Your task to perform on an android device: Open Chrome and go to settings Image 0: 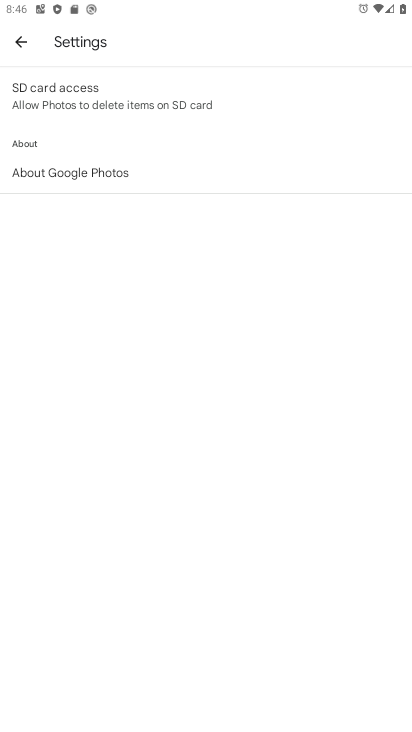
Step 0: press home button
Your task to perform on an android device: Open Chrome and go to settings Image 1: 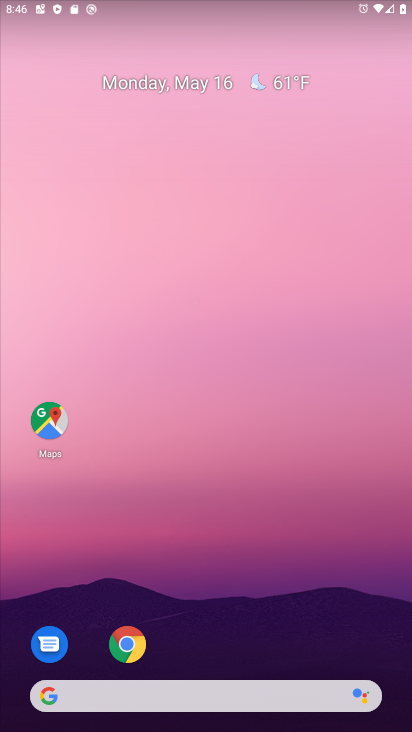
Step 1: click (128, 647)
Your task to perform on an android device: Open Chrome and go to settings Image 2: 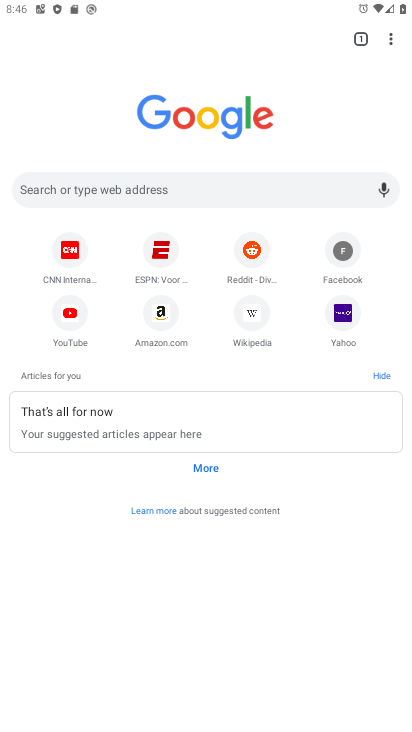
Step 2: click (384, 41)
Your task to perform on an android device: Open Chrome and go to settings Image 3: 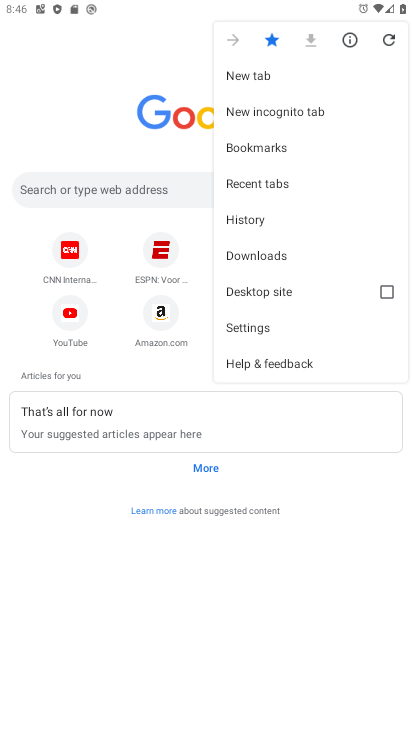
Step 3: click (231, 330)
Your task to perform on an android device: Open Chrome and go to settings Image 4: 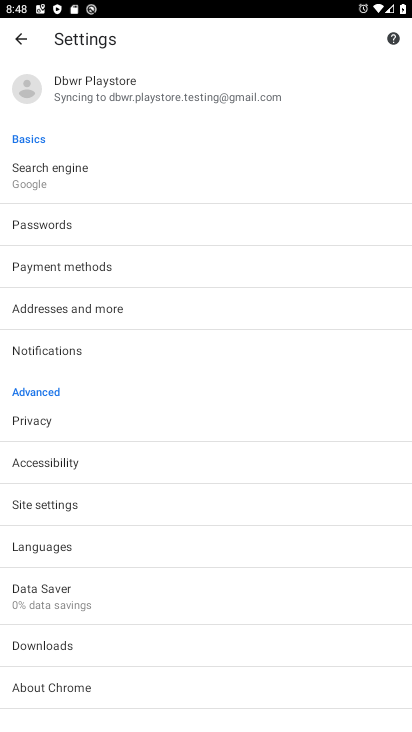
Step 4: task complete